Your task to perform on an android device: Open Chrome and go to the settings page Image 0: 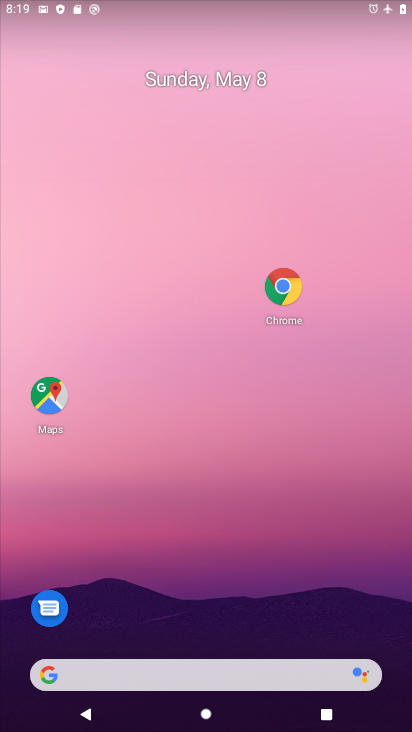
Step 0: click (280, 289)
Your task to perform on an android device: Open Chrome and go to the settings page Image 1: 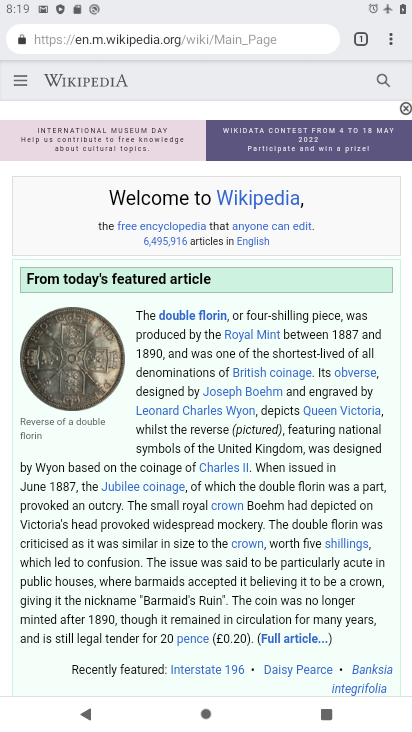
Step 1: task complete